Your task to perform on an android device: Is it going to rain today? Image 0: 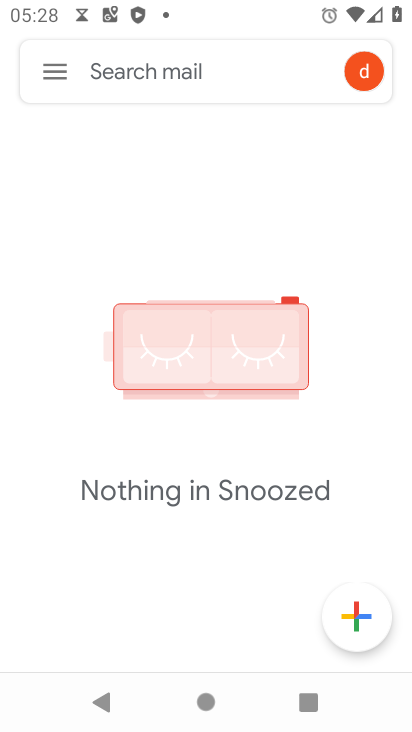
Step 0: press home button
Your task to perform on an android device: Is it going to rain today? Image 1: 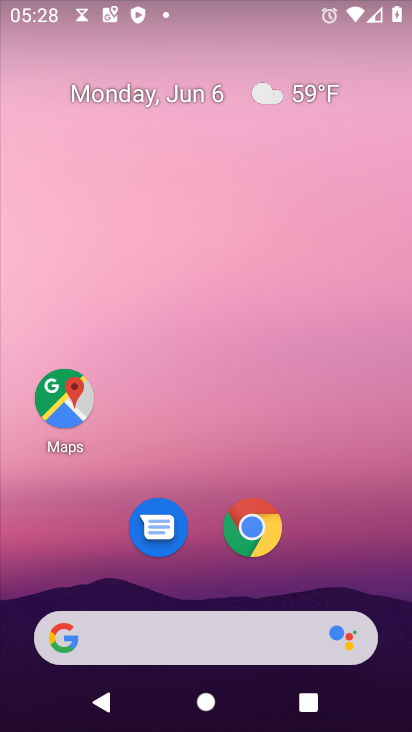
Step 1: click (305, 89)
Your task to perform on an android device: Is it going to rain today? Image 2: 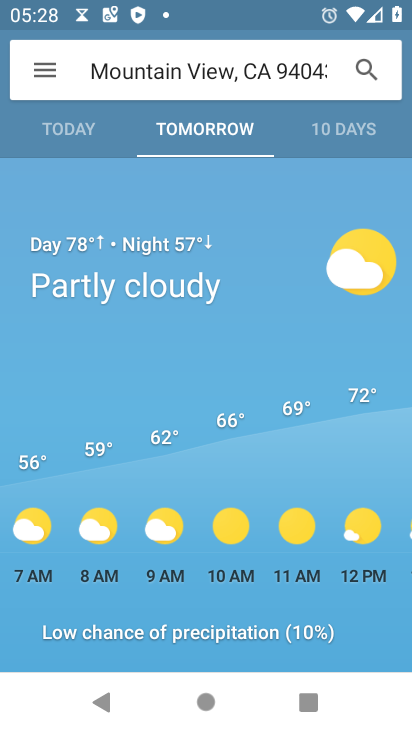
Step 2: click (50, 129)
Your task to perform on an android device: Is it going to rain today? Image 3: 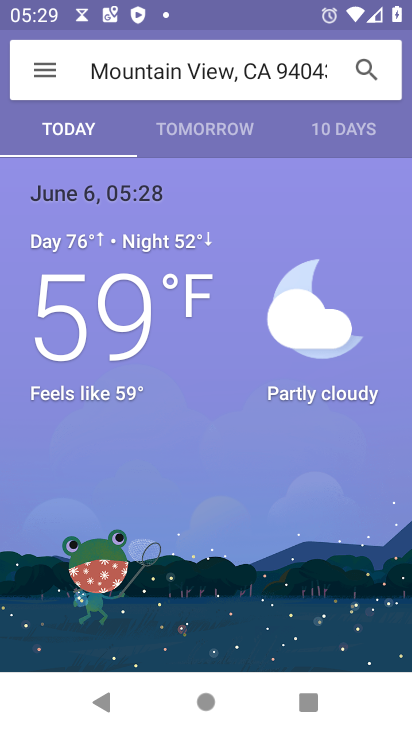
Step 3: task complete